Your task to perform on an android device: Search for "usb-a" on ebay.com, select the first entry, add it to the cart, then select checkout. Image 0: 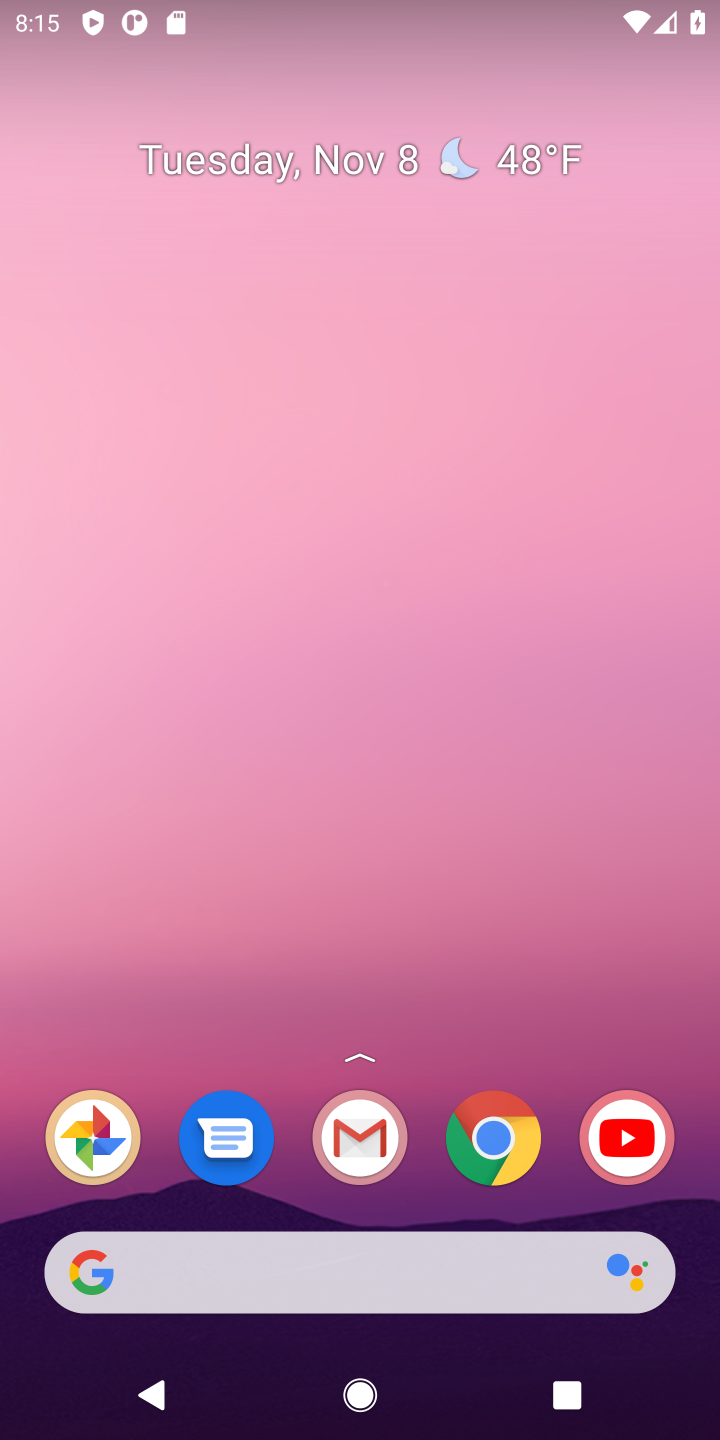
Step 0: click (489, 1127)
Your task to perform on an android device: Search for "usb-a" on ebay.com, select the first entry, add it to the cart, then select checkout. Image 1: 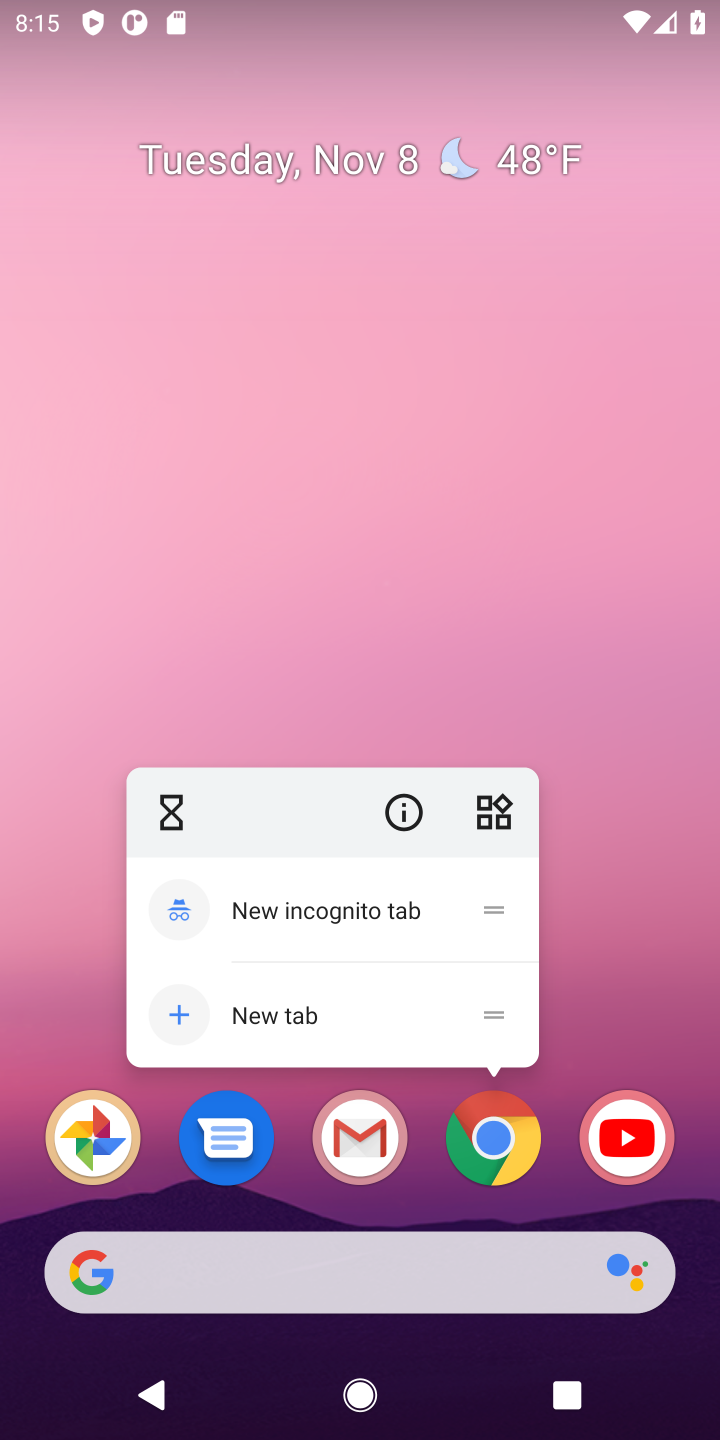
Step 1: click (489, 1133)
Your task to perform on an android device: Search for "usb-a" on ebay.com, select the first entry, add it to the cart, then select checkout. Image 2: 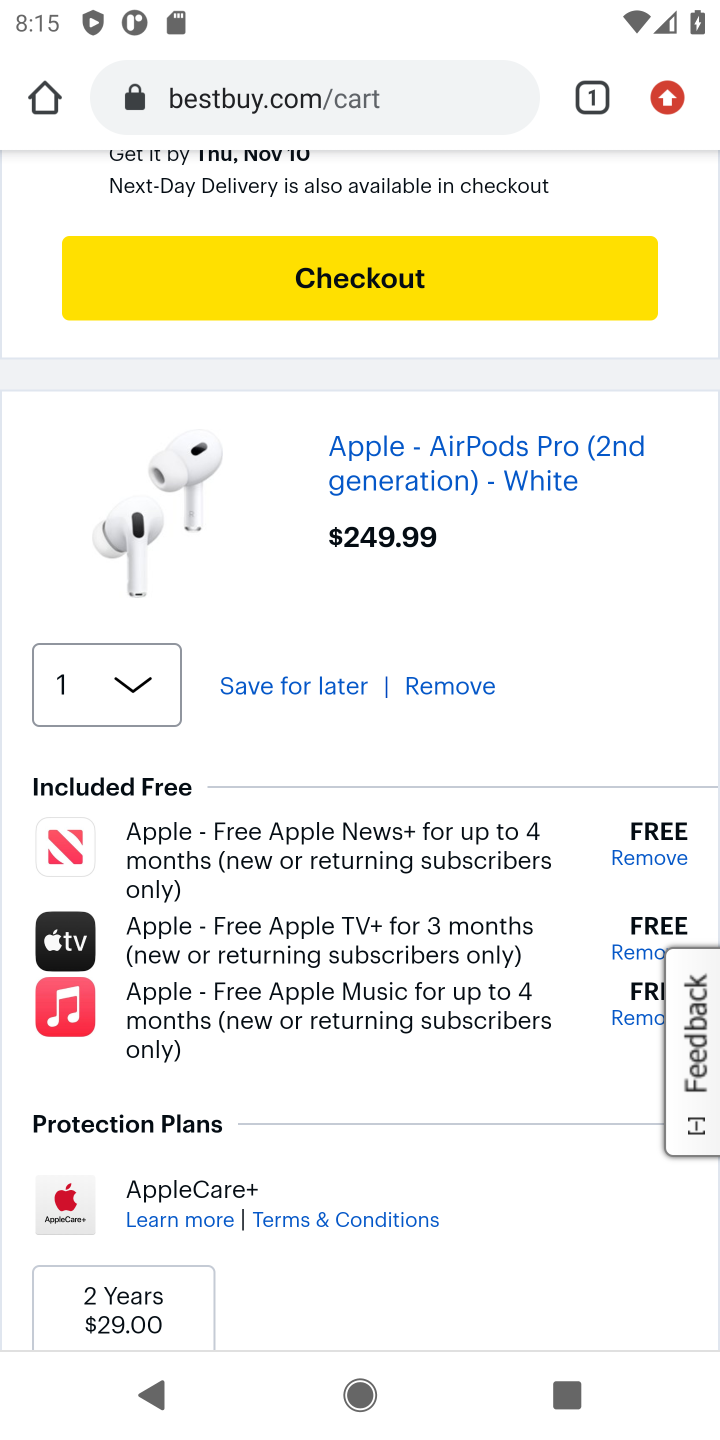
Step 2: click (418, 92)
Your task to perform on an android device: Search for "usb-a" on ebay.com, select the first entry, add it to the cart, then select checkout. Image 3: 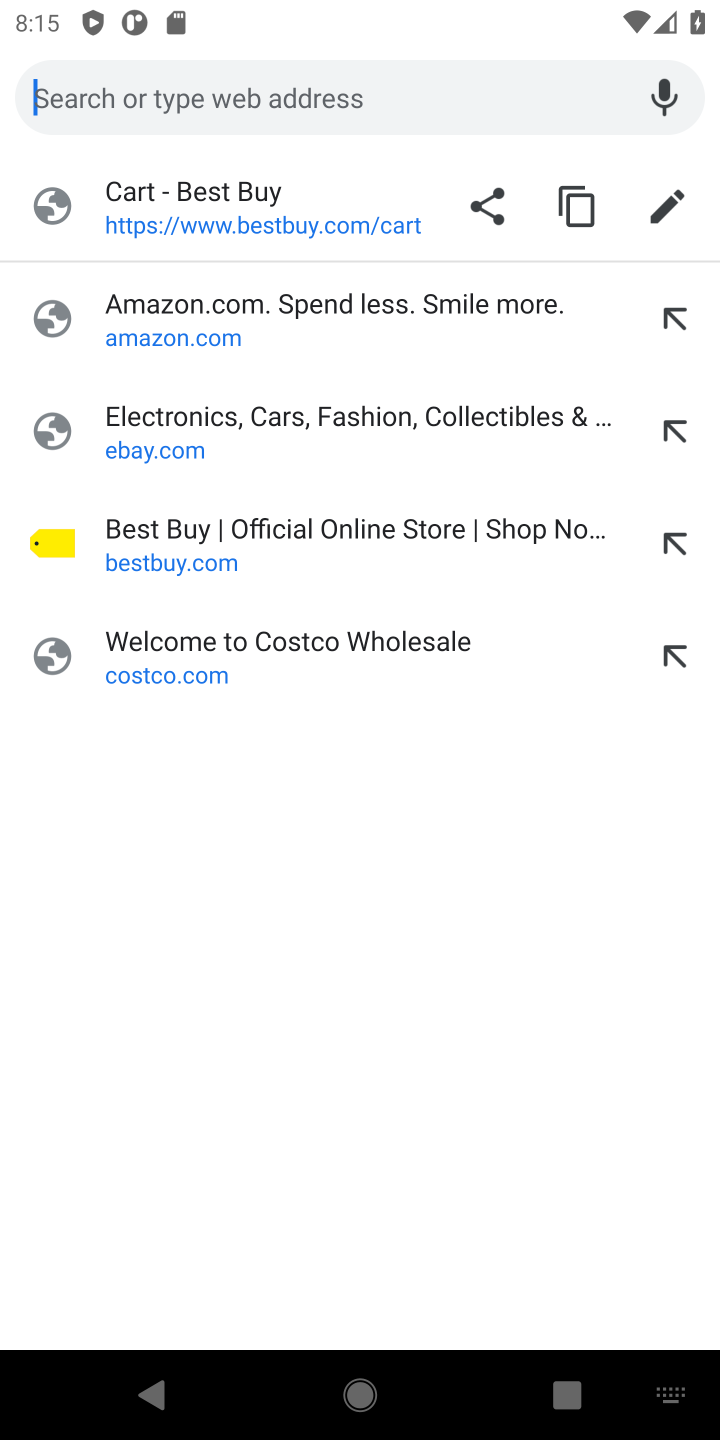
Step 3: click (128, 436)
Your task to perform on an android device: Search for "usb-a" on ebay.com, select the first entry, add it to the cart, then select checkout. Image 4: 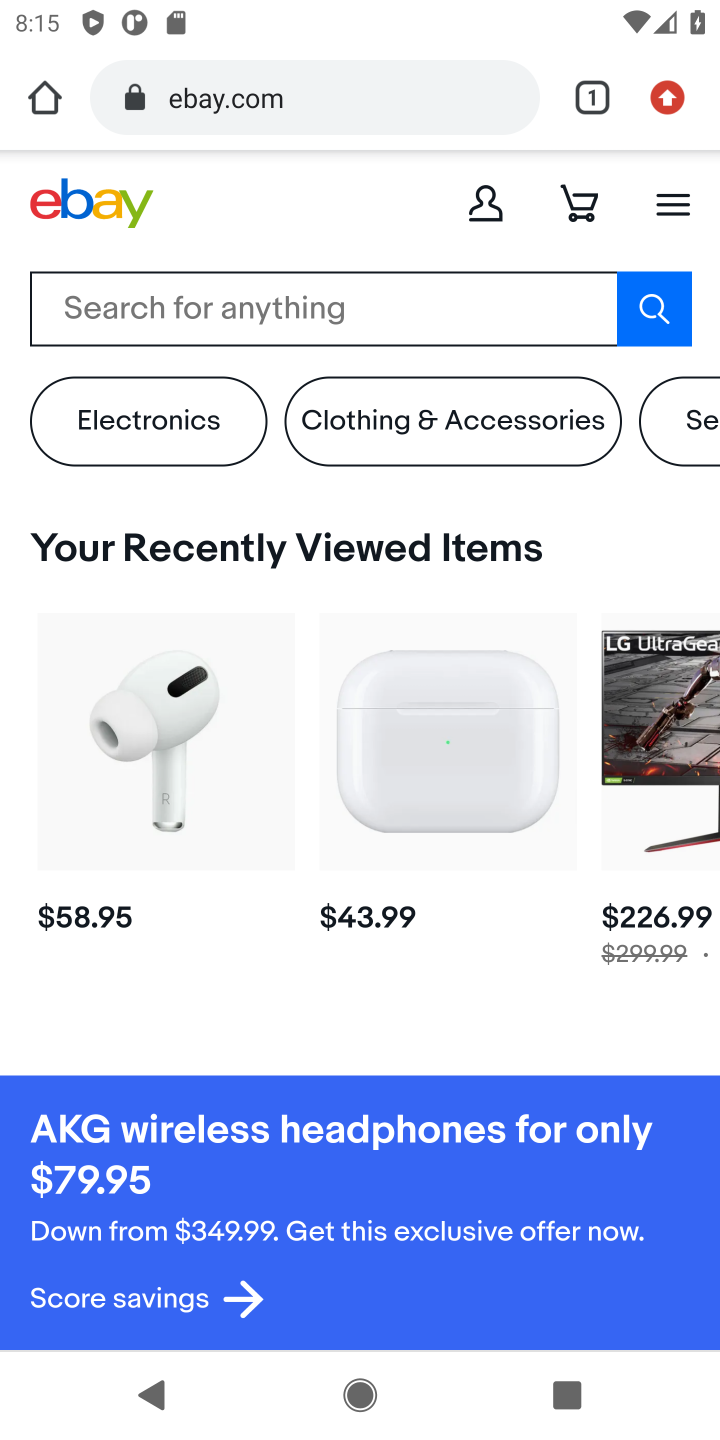
Step 4: click (239, 302)
Your task to perform on an android device: Search for "usb-a" on ebay.com, select the first entry, add it to the cart, then select checkout. Image 5: 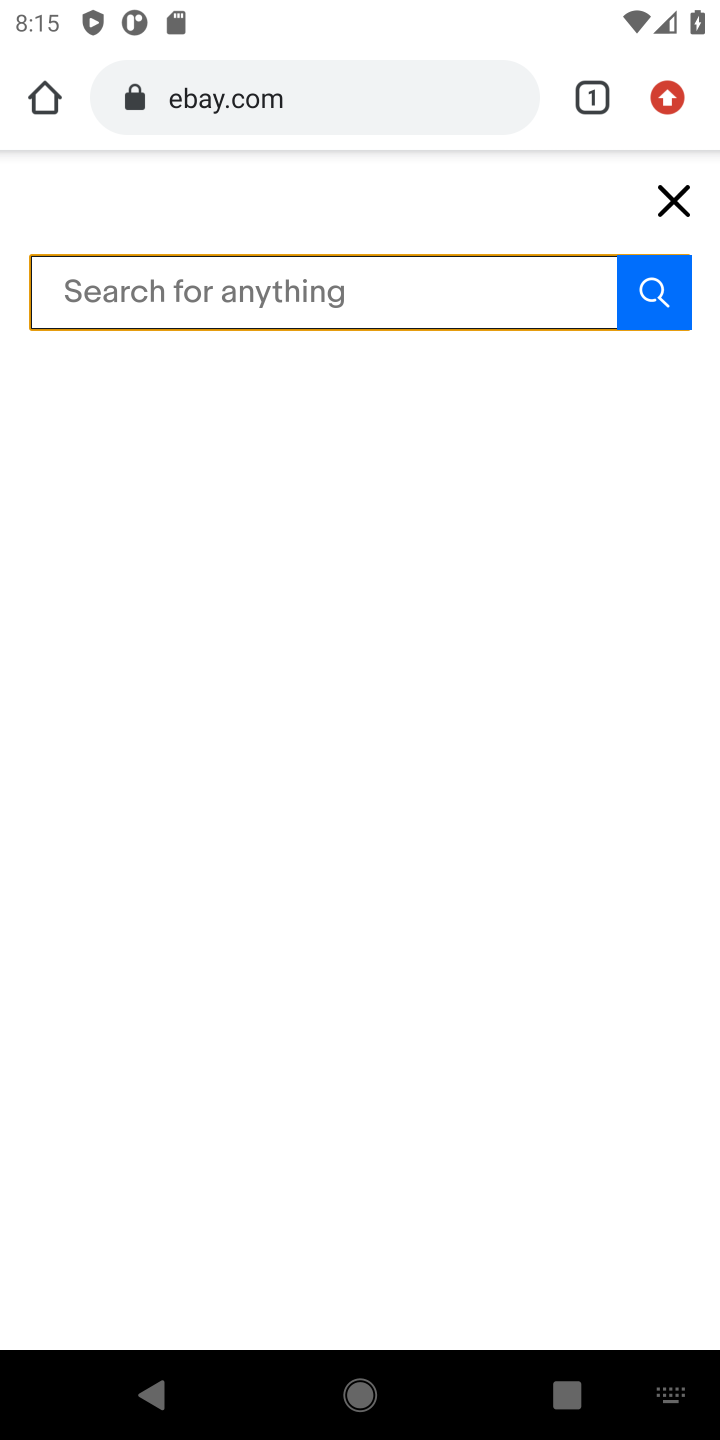
Step 5: type "usb-a"
Your task to perform on an android device: Search for "usb-a" on ebay.com, select the first entry, add it to the cart, then select checkout. Image 6: 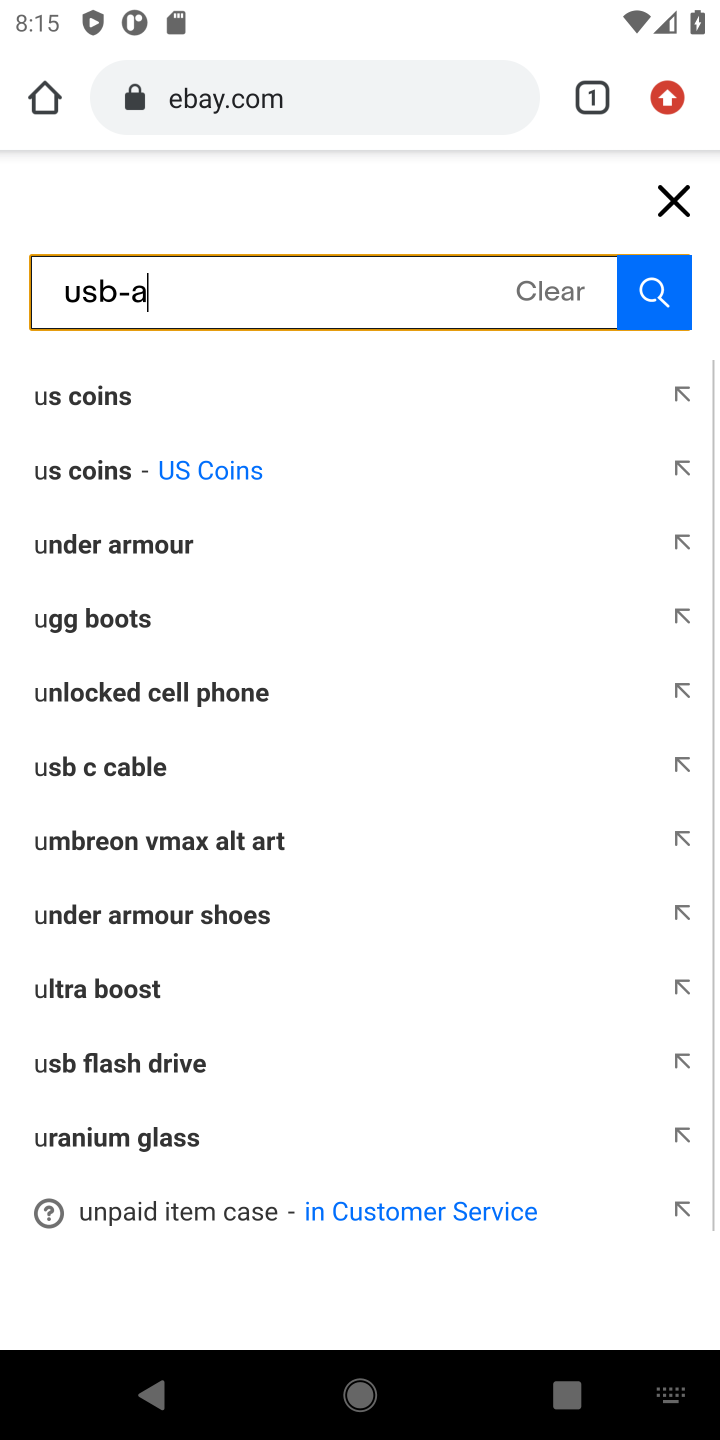
Step 6: press enter
Your task to perform on an android device: Search for "usb-a" on ebay.com, select the first entry, add it to the cart, then select checkout. Image 7: 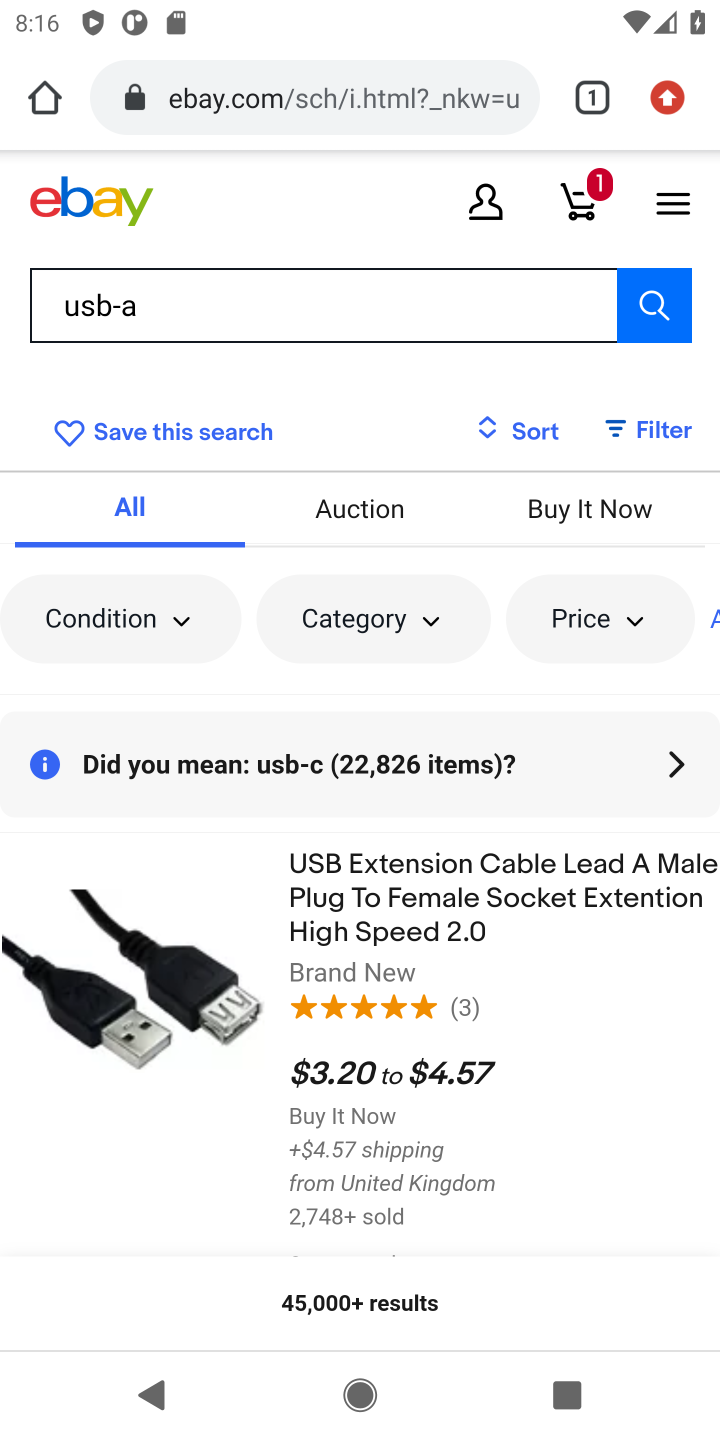
Step 7: drag from (220, 1246) to (378, 698)
Your task to perform on an android device: Search for "usb-a" on ebay.com, select the first entry, add it to the cart, then select checkout. Image 8: 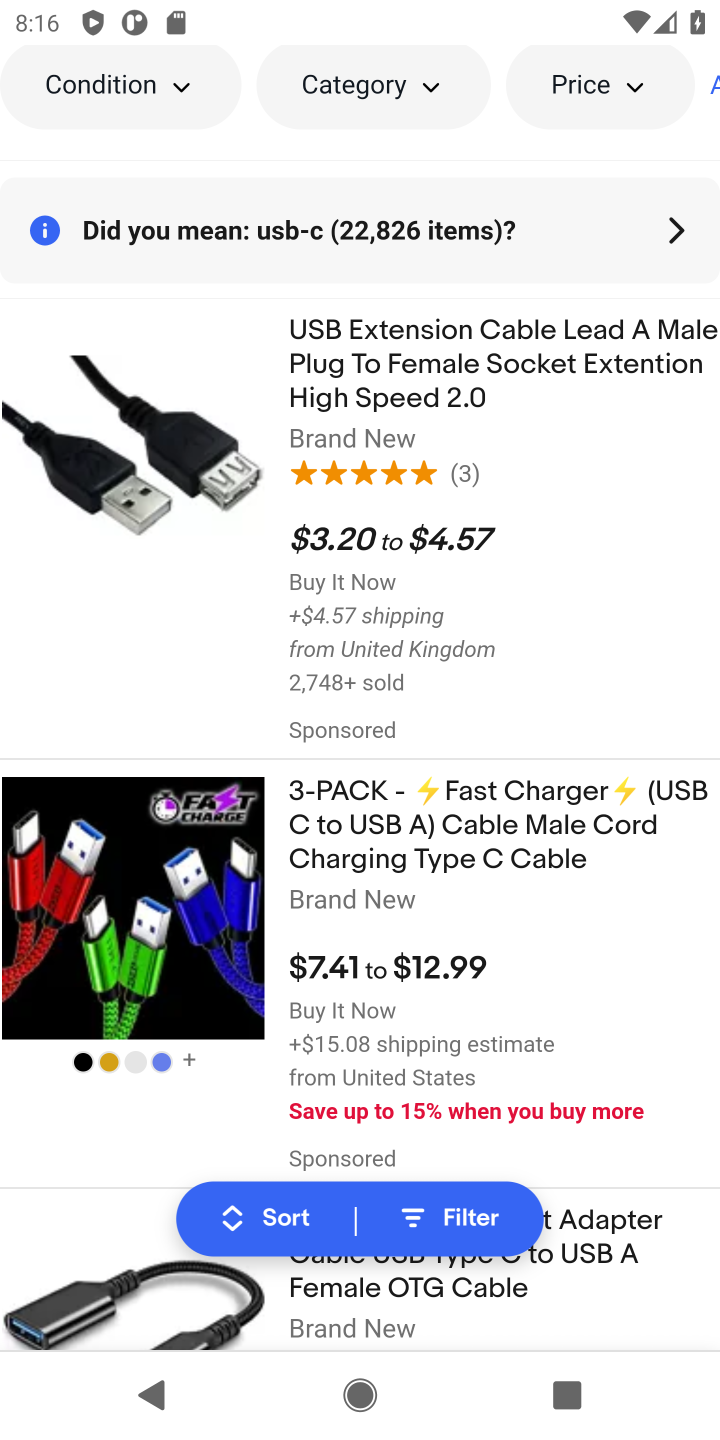
Step 8: click (385, 383)
Your task to perform on an android device: Search for "usb-a" on ebay.com, select the first entry, add it to the cart, then select checkout. Image 9: 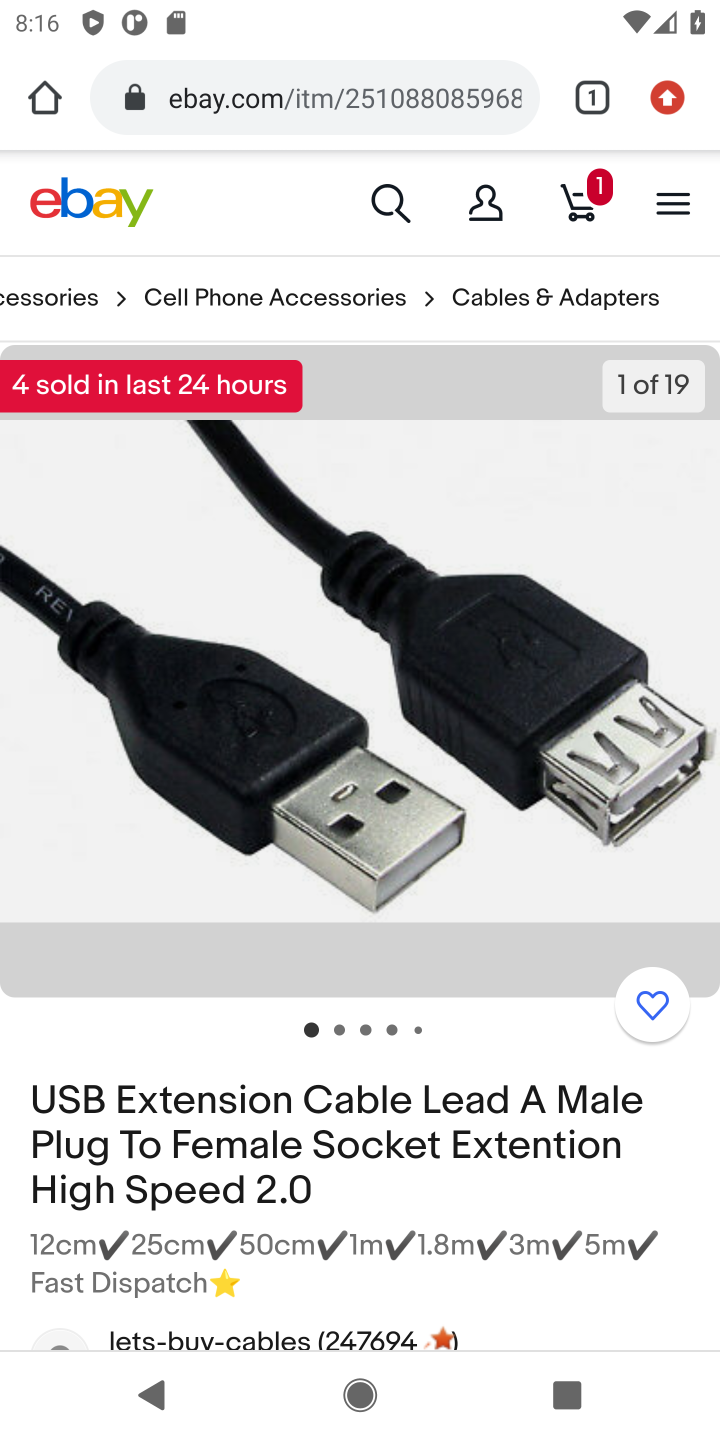
Step 9: drag from (454, 1032) to (501, 768)
Your task to perform on an android device: Search for "usb-a" on ebay.com, select the first entry, add it to the cart, then select checkout. Image 10: 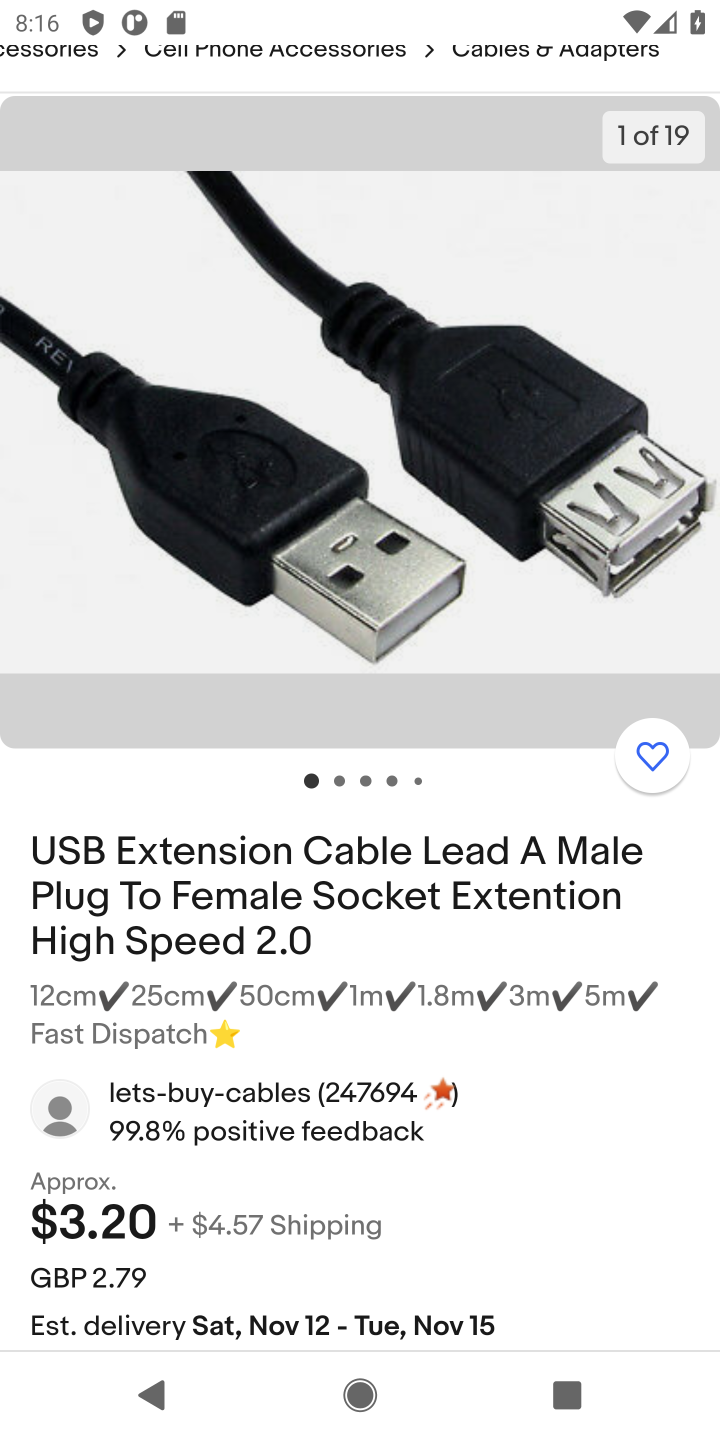
Step 10: drag from (376, 1104) to (462, 368)
Your task to perform on an android device: Search for "usb-a" on ebay.com, select the first entry, add it to the cart, then select checkout. Image 11: 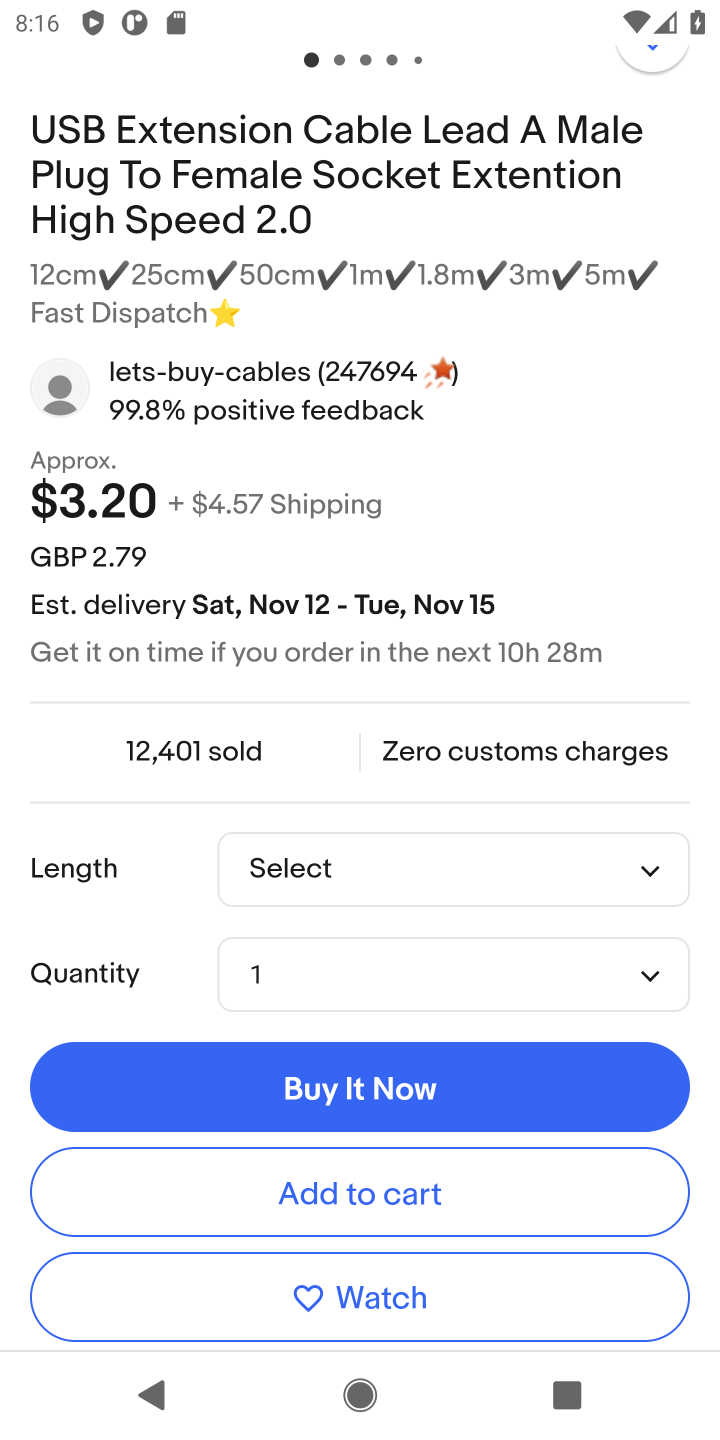
Step 11: click (364, 1200)
Your task to perform on an android device: Search for "usb-a" on ebay.com, select the first entry, add it to the cart, then select checkout. Image 12: 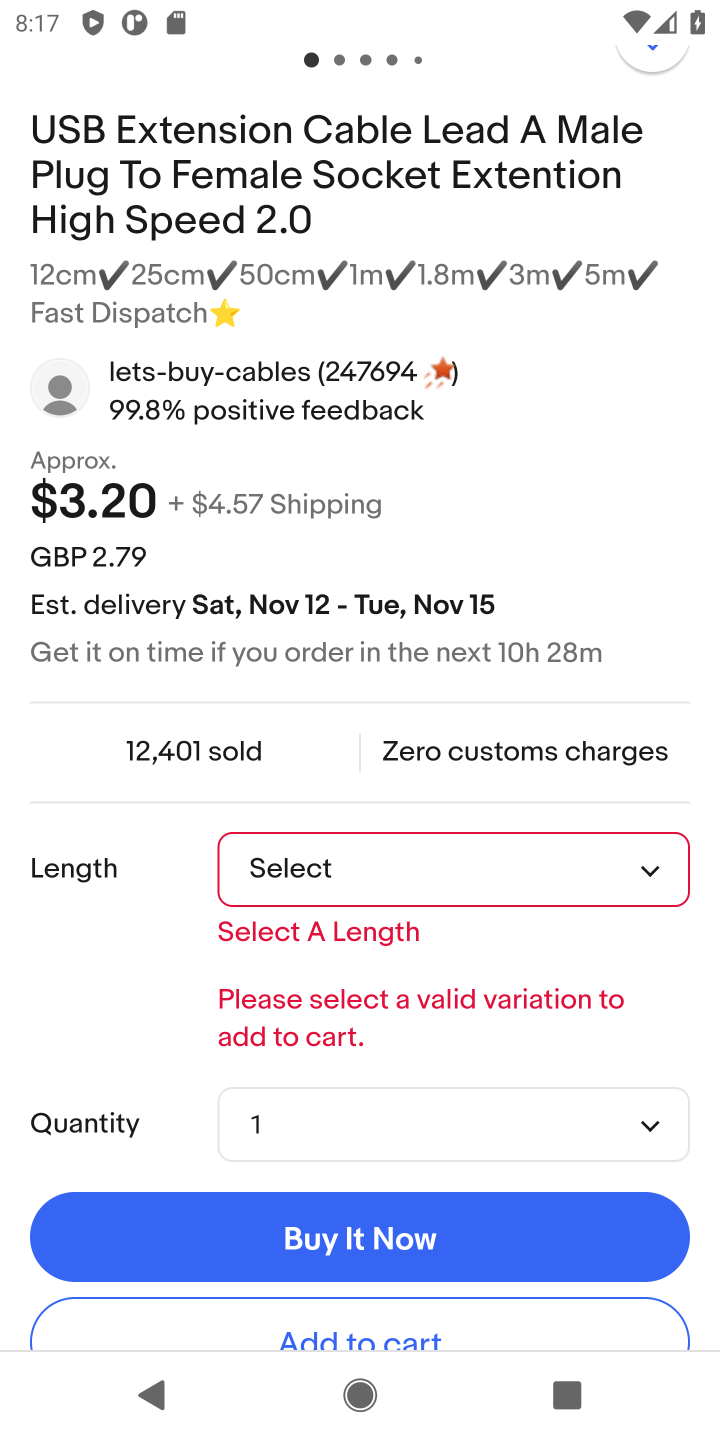
Step 12: click (649, 872)
Your task to perform on an android device: Search for "usb-a" on ebay.com, select the first entry, add it to the cart, then select checkout. Image 13: 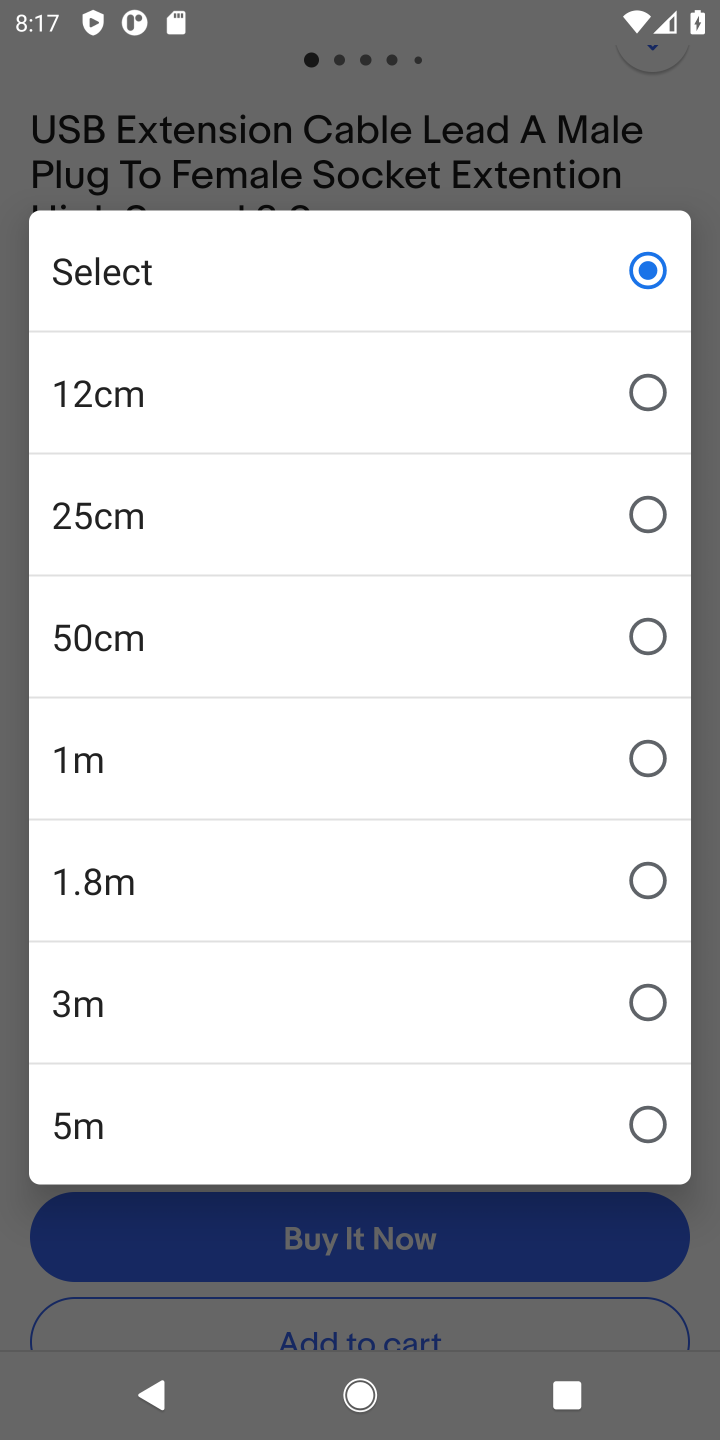
Step 13: click (651, 390)
Your task to perform on an android device: Search for "usb-a" on ebay.com, select the first entry, add it to the cart, then select checkout. Image 14: 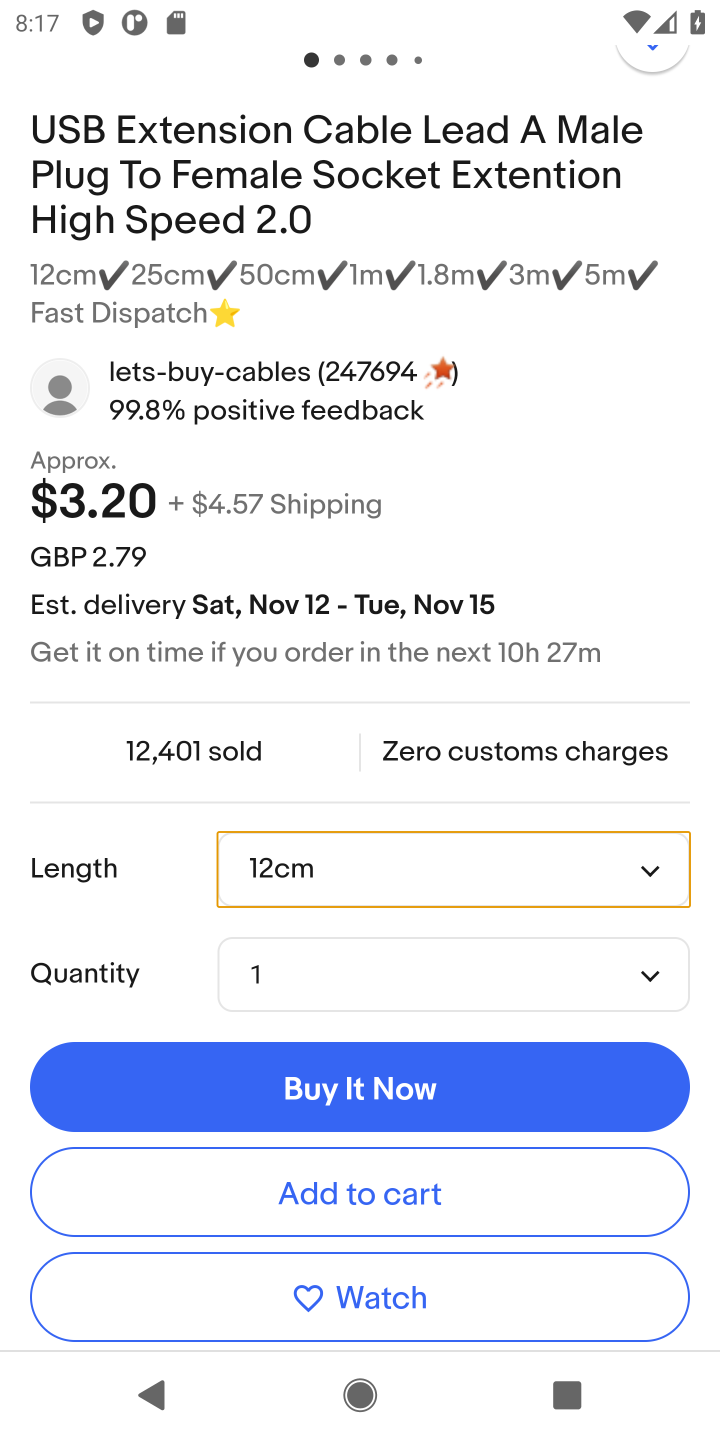
Step 14: click (341, 1198)
Your task to perform on an android device: Search for "usb-a" on ebay.com, select the first entry, add it to the cart, then select checkout. Image 15: 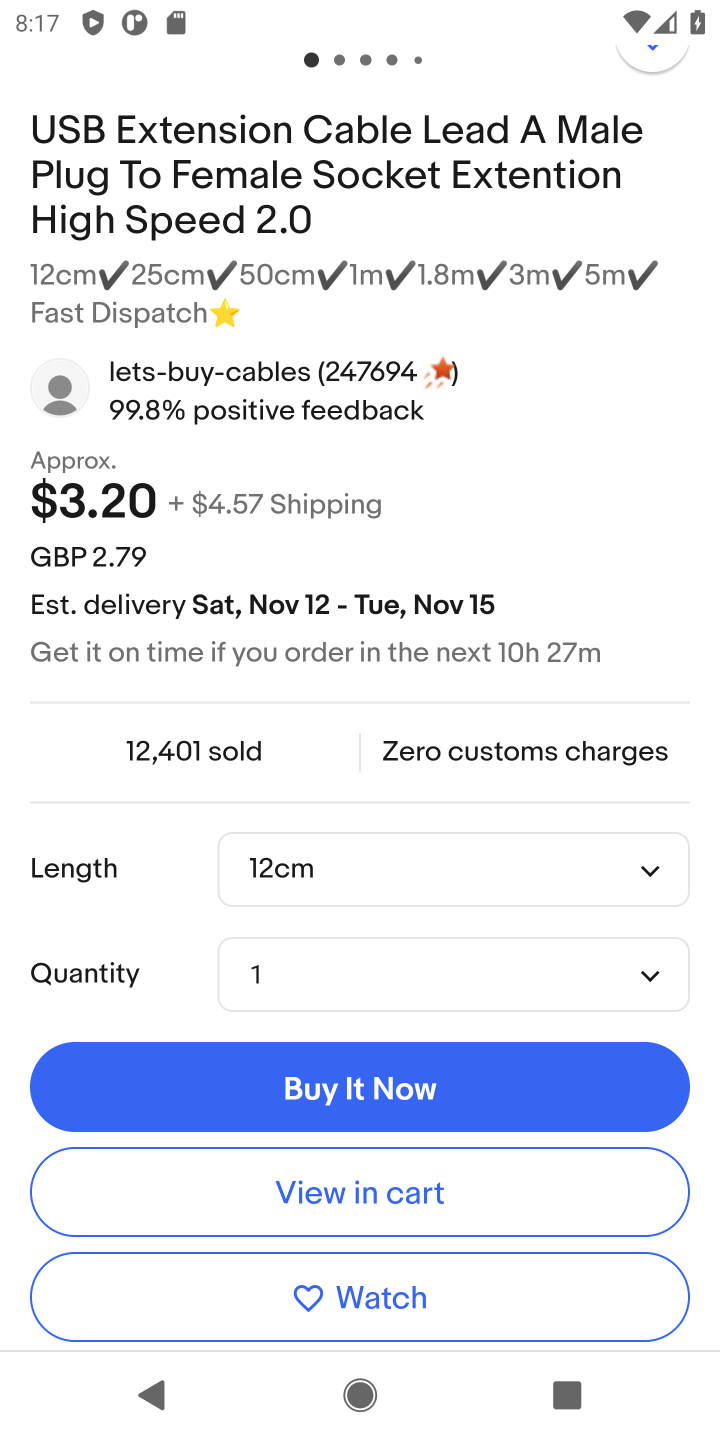
Step 15: click (397, 1193)
Your task to perform on an android device: Search for "usb-a" on ebay.com, select the first entry, add it to the cart, then select checkout. Image 16: 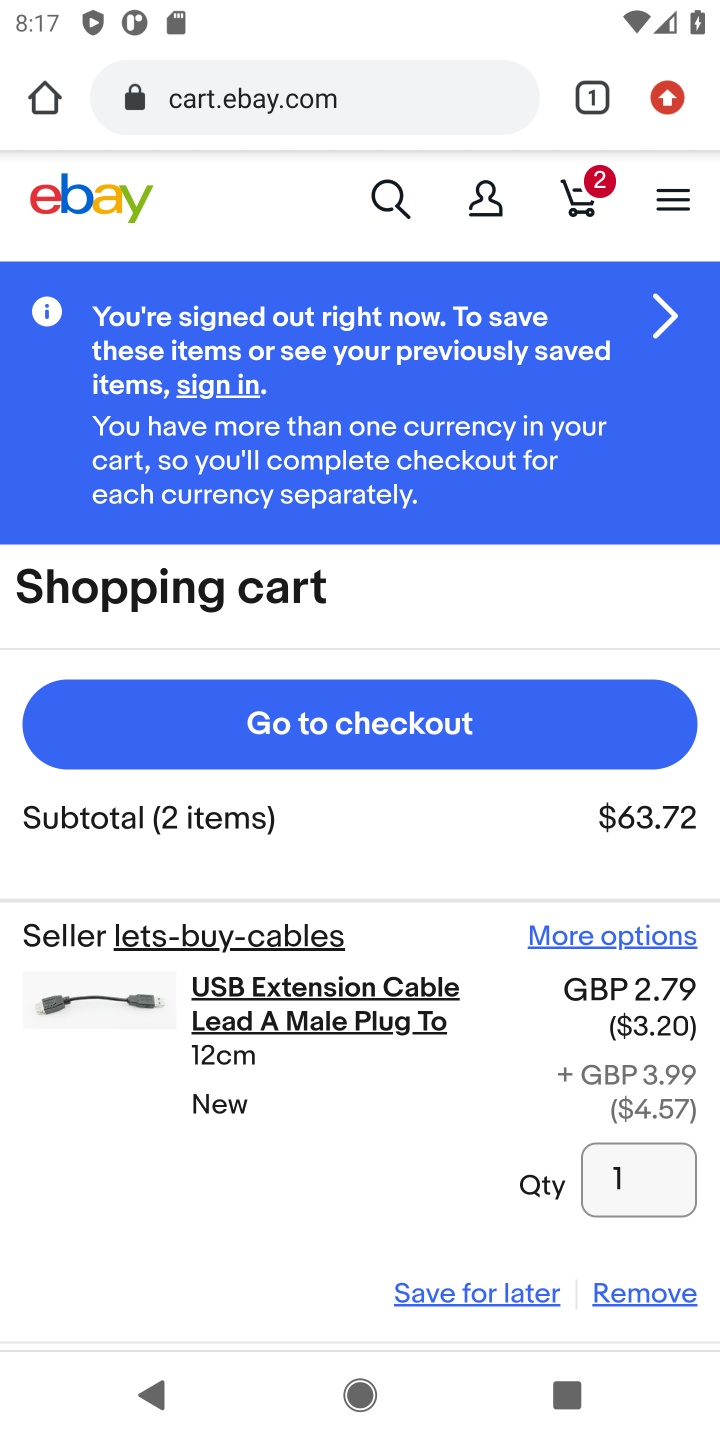
Step 16: click (593, 185)
Your task to perform on an android device: Search for "usb-a" on ebay.com, select the first entry, add it to the cart, then select checkout. Image 17: 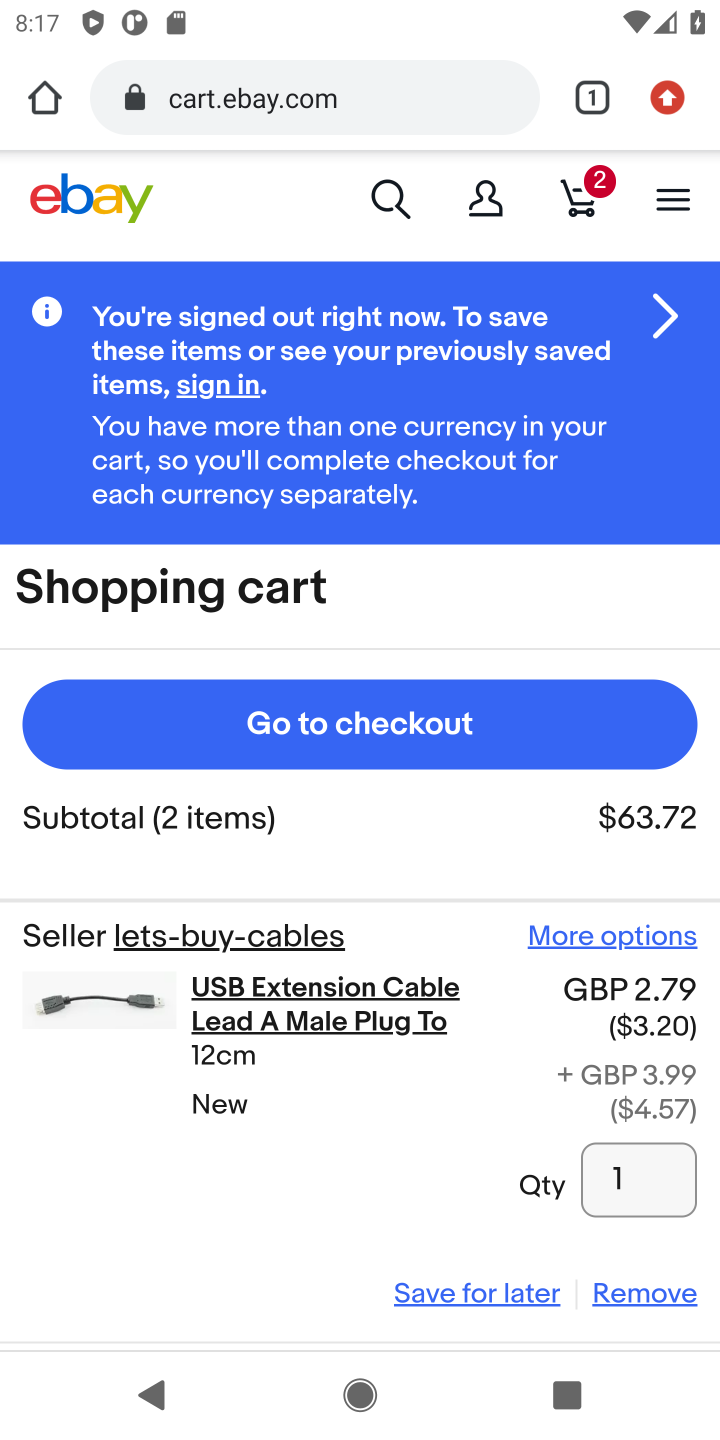
Step 17: click (586, 181)
Your task to perform on an android device: Search for "usb-a" on ebay.com, select the first entry, add it to the cart, then select checkout. Image 18: 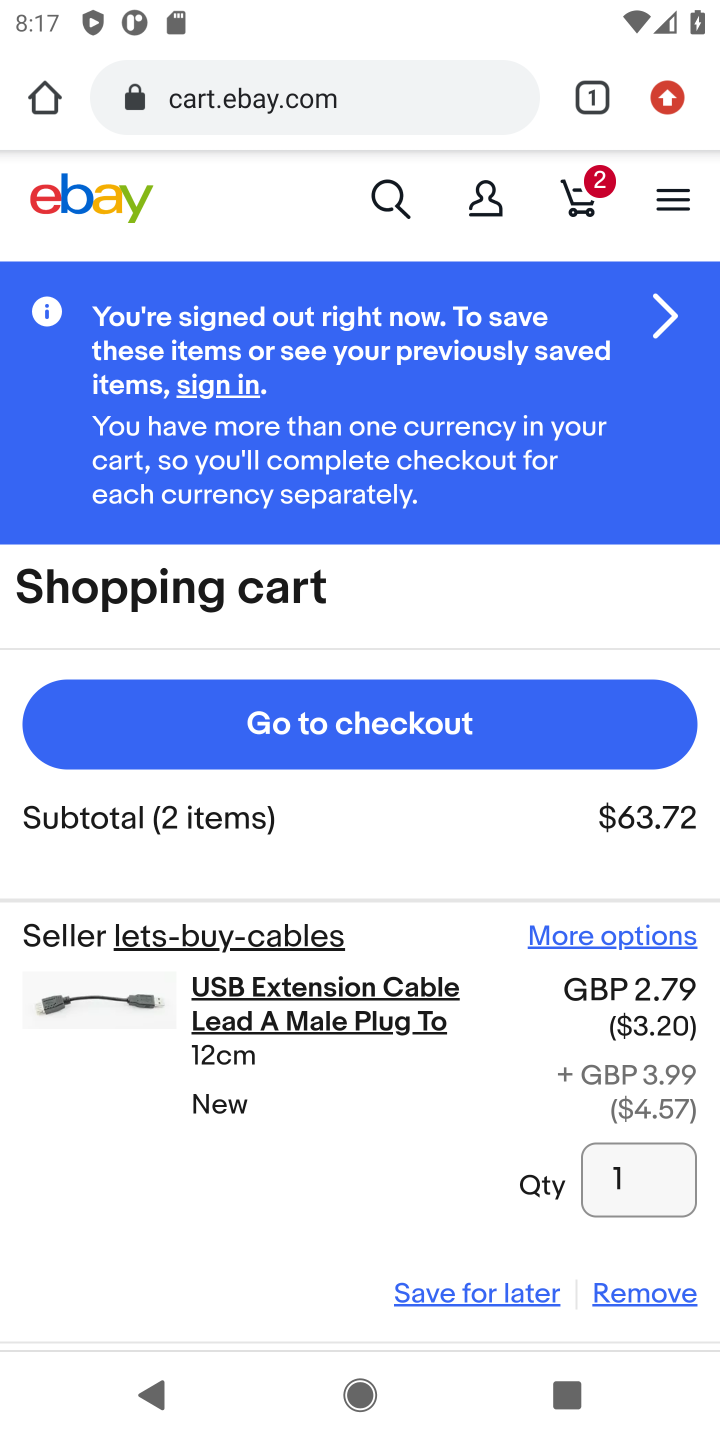
Step 18: drag from (302, 1237) to (375, 519)
Your task to perform on an android device: Search for "usb-a" on ebay.com, select the first entry, add it to the cart, then select checkout. Image 19: 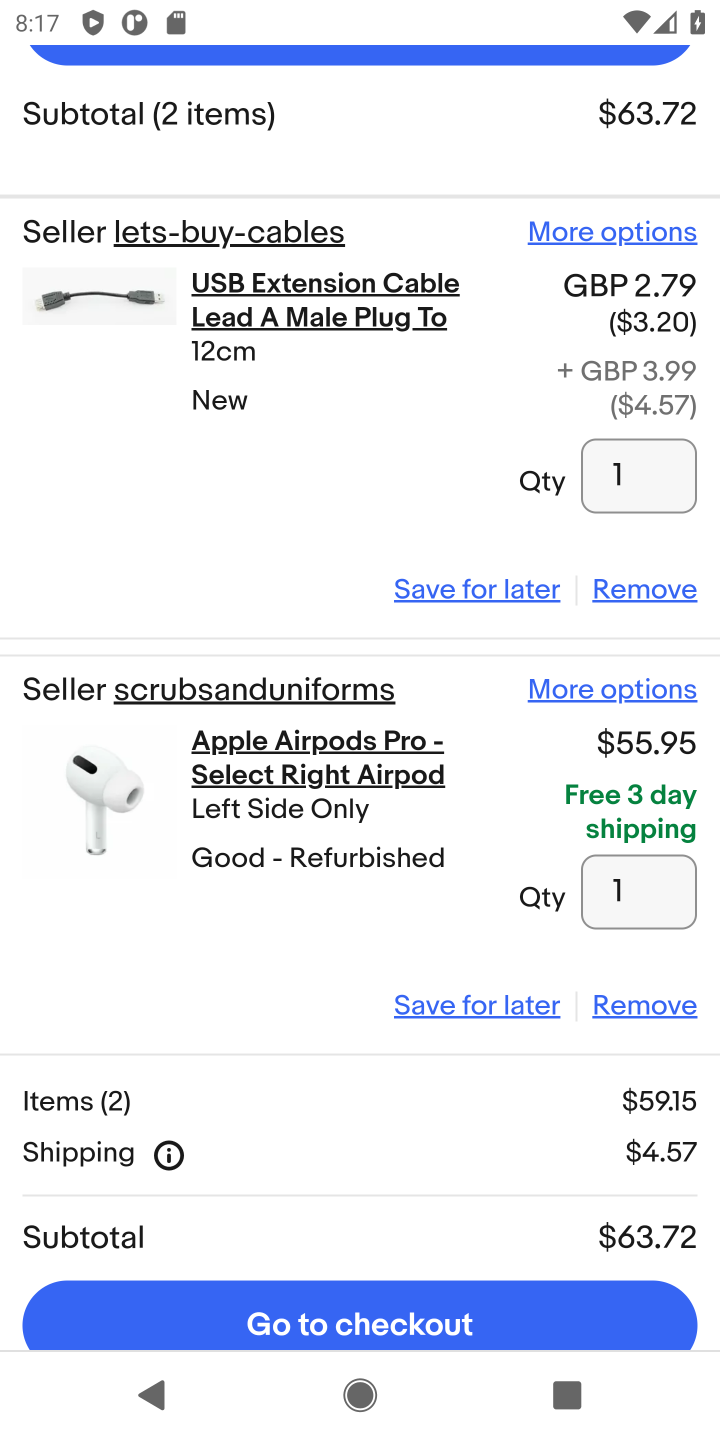
Step 19: click (649, 998)
Your task to perform on an android device: Search for "usb-a" on ebay.com, select the first entry, add it to the cart, then select checkout. Image 20: 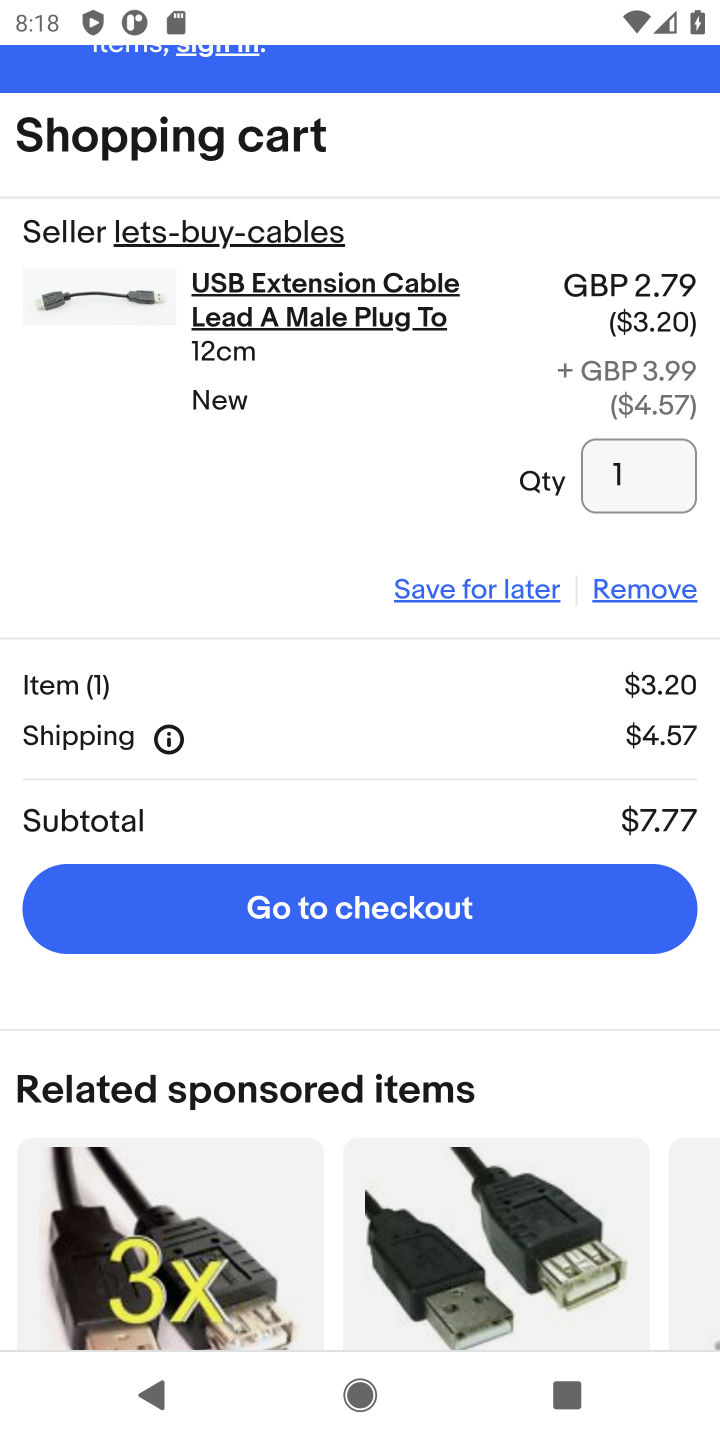
Step 20: click (388, 901)
Your task to perform on an android device: Search for "usb-a" on ebay.com, select the first entry, add it to the cart, then select checkout. Image 21: 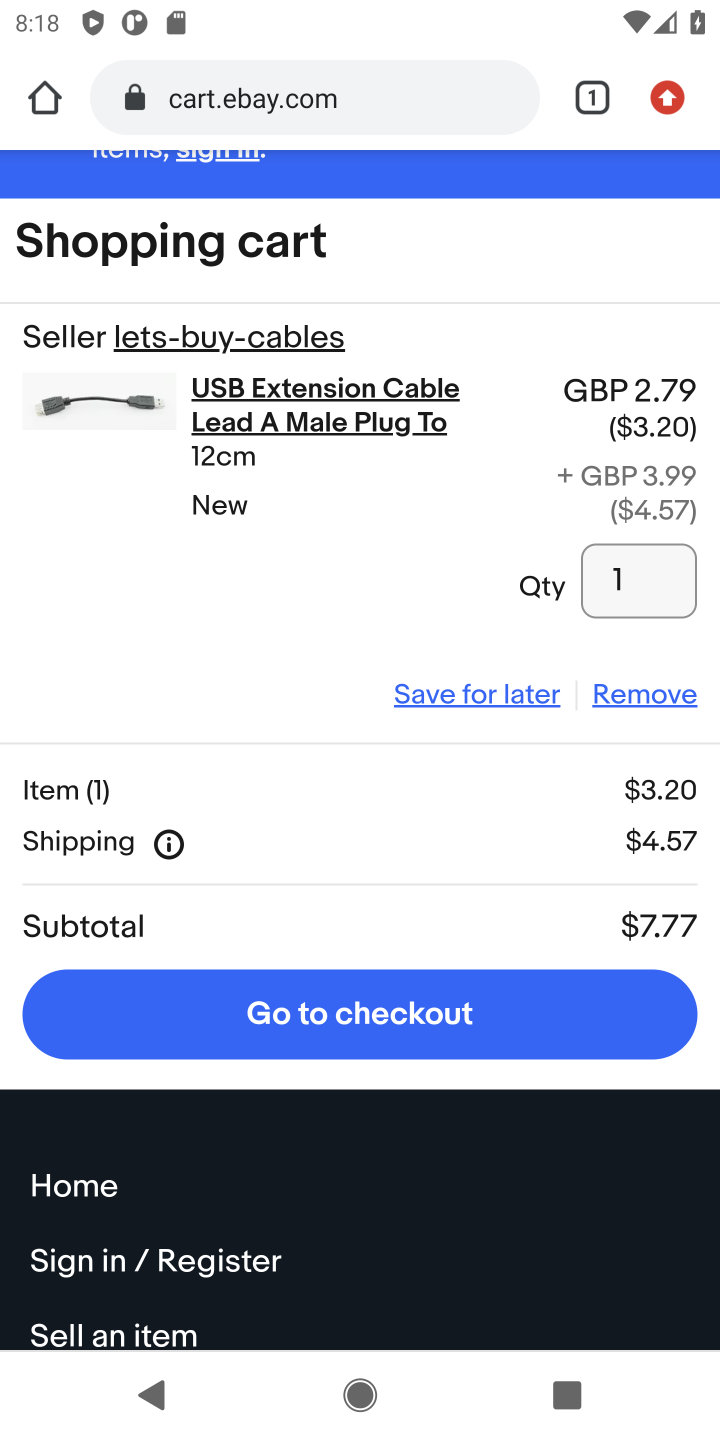
Step 21: click (399, 1013)
Your task to perform on an android device: Search for "usb-a" on ebay.com, select the first entry, add it to the cart, then select checkout. Image 22: 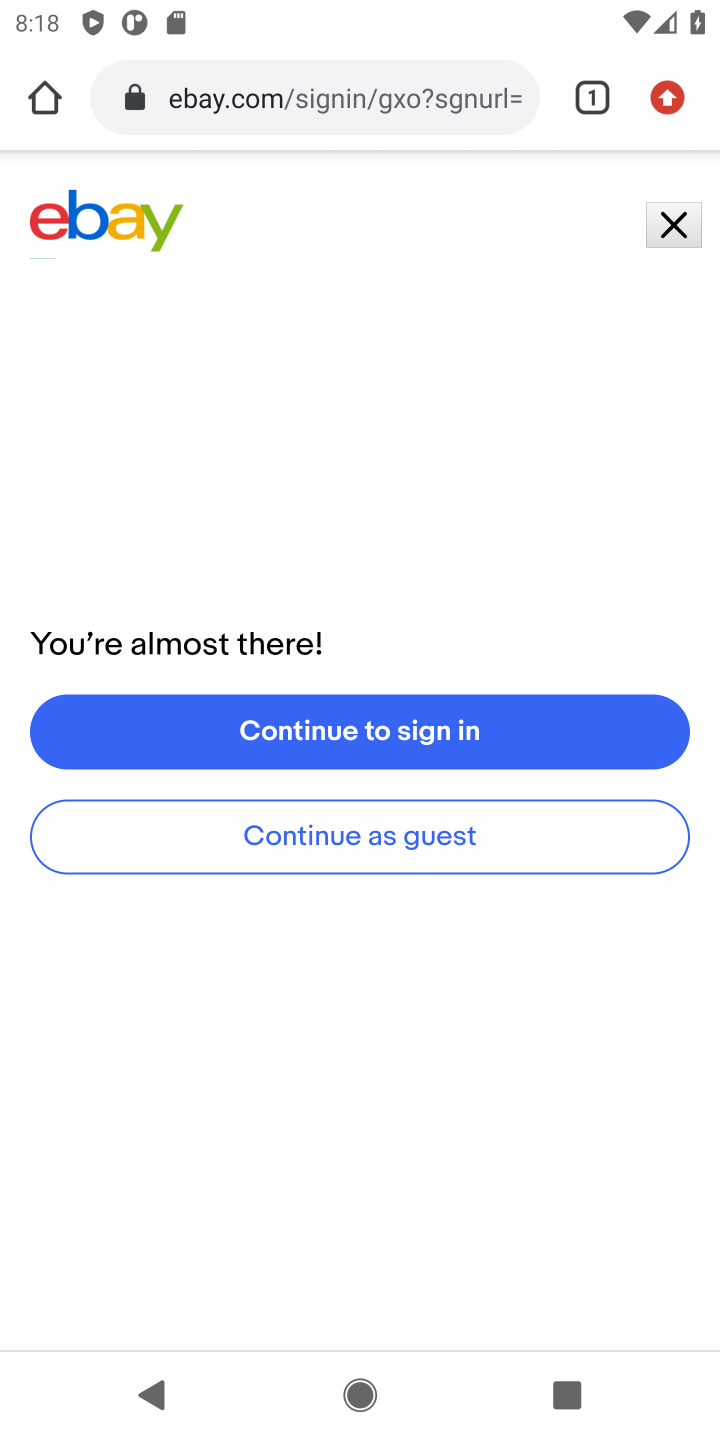
Step 22: task complete